Your task to perform on an android device: Open my contact list Image 0: 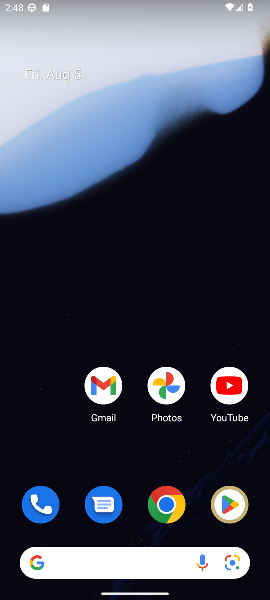
Step 0: drag from (21, 584) to (193, 77)
Your task to perform on an android device: Open my contact list Image 1: 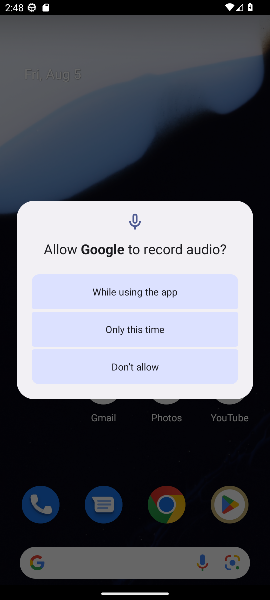
Step 1: task complete